Your task to perform on an android device: Search for sushi restaurants on Maps Image 0: 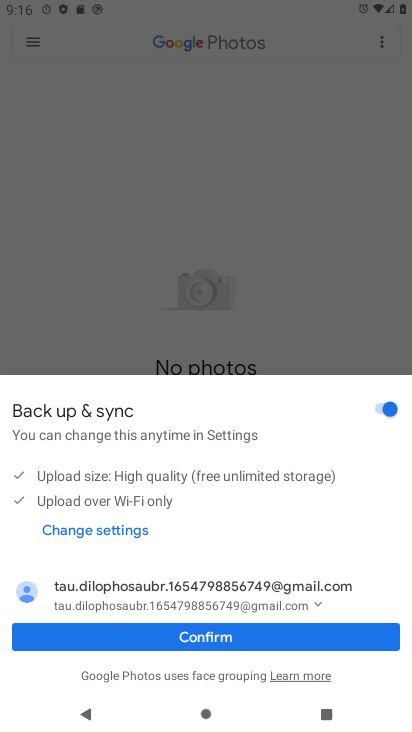
Step 0: press home button
Your task to perform on an android device: Search for sushi restaurants on Maps Image 1: 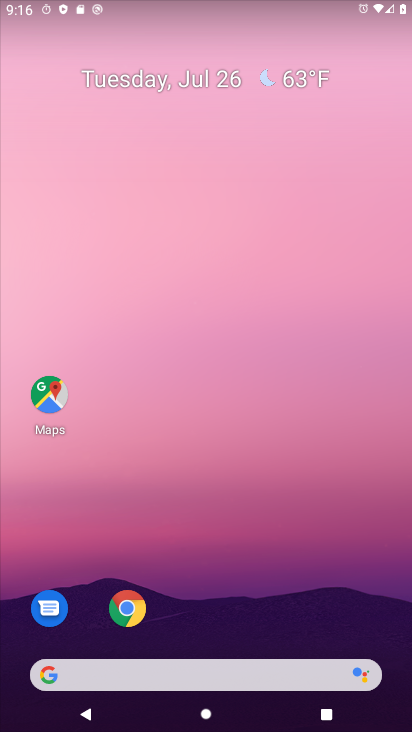
Step 1: click (52, 394)
Your task to perform on an android device: Search for sushi restaurants on Maps Image 2: 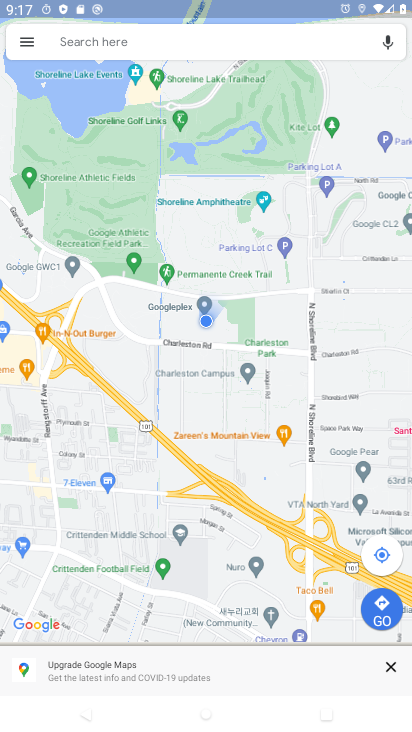
Step 2: click (112, 33)
Your task to perform on an android device: Search for sushi restaurants on Maps Image 3: 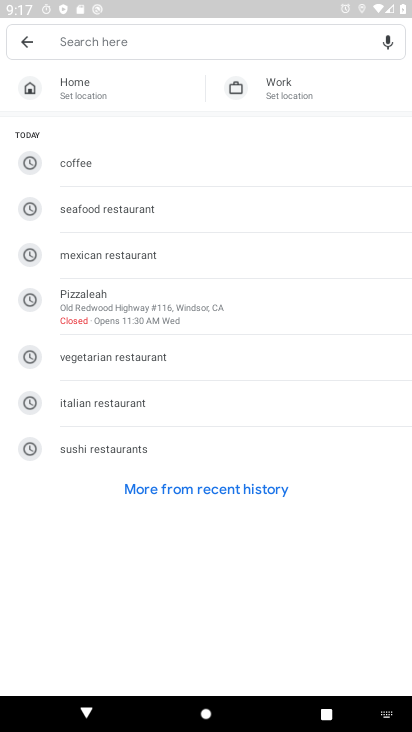
Step 3: click (167, 445)
Your task to perform on an android device: Search for sushi restaurants on Maps Image 4: 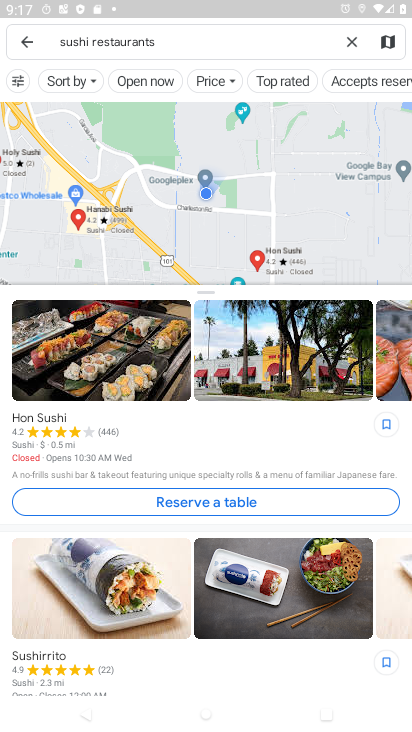
Step 4: task complete